Your task to perform on an android device: Turn off the flashlight Image 0: 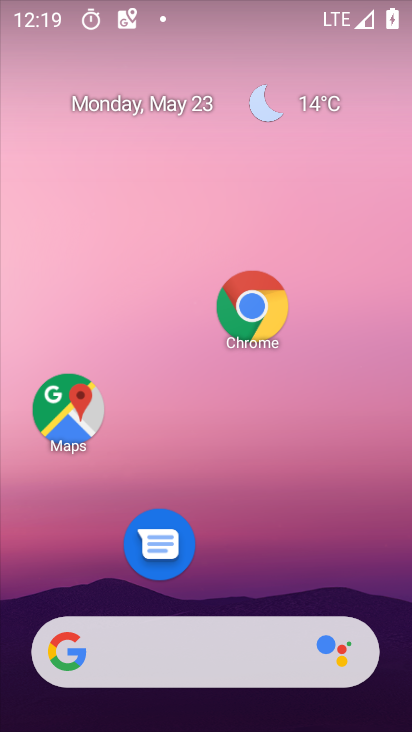
Step 0: drag from (261, 582) to (182, 258)
Your task to perform on an android device: Turn off the flashlight Image 1: 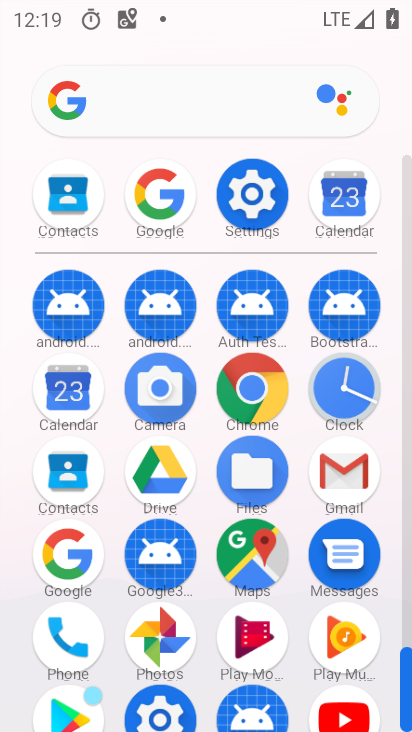
Step 1: click (250, 206)
Your task to perform on an android device: Turn off the flashlight Image 2: 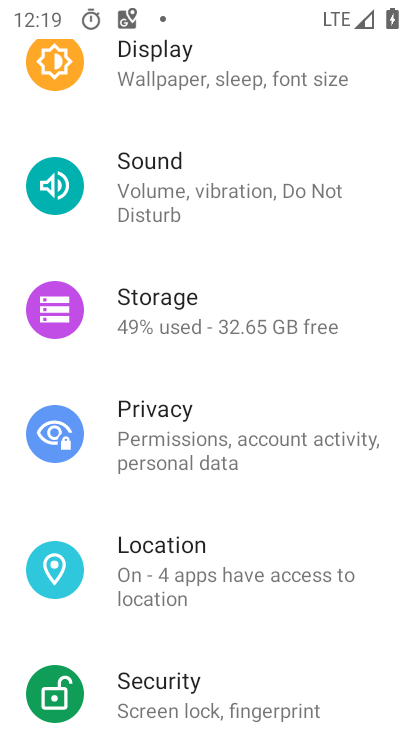
Step 2: task complete